Your task to perform on an android device: turn on javascript in the chrome app Image 0: 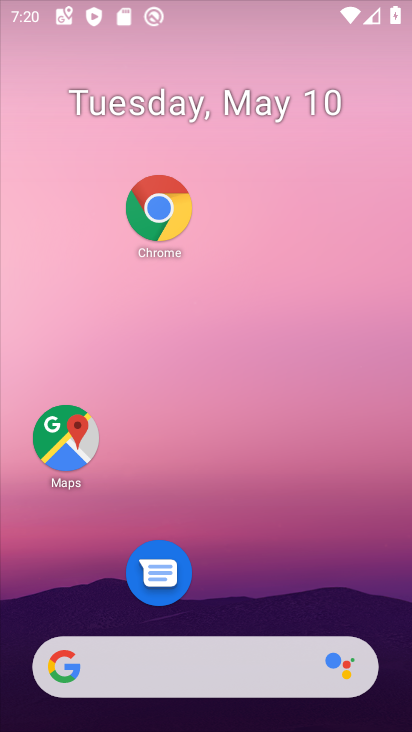
Step 0: drag from (266, 710) to (279, 262)
Your task to perform on an android device: turn on javascript in the chrome app Image 1: 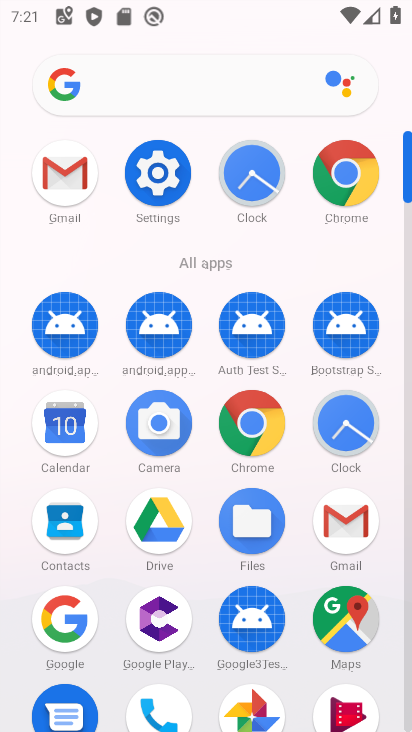
Step 1: click (344, 186)
Your task to perform on an android device: turn on javascript in the chrome app Image 2: 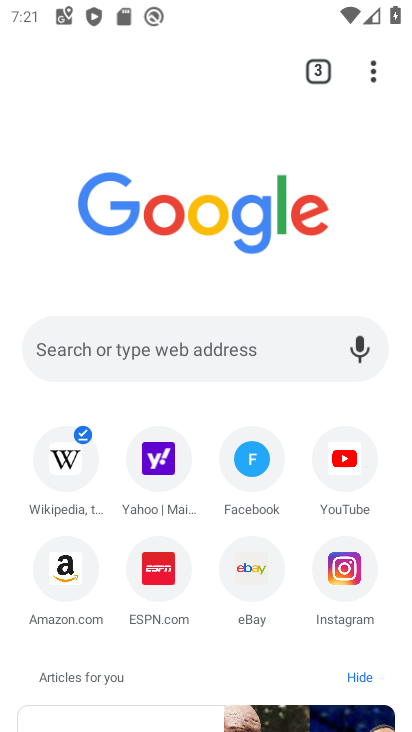
Step 2: click (372, 78)
Your task to perform on an android device: turn on javascript in the chrome app Image 3: 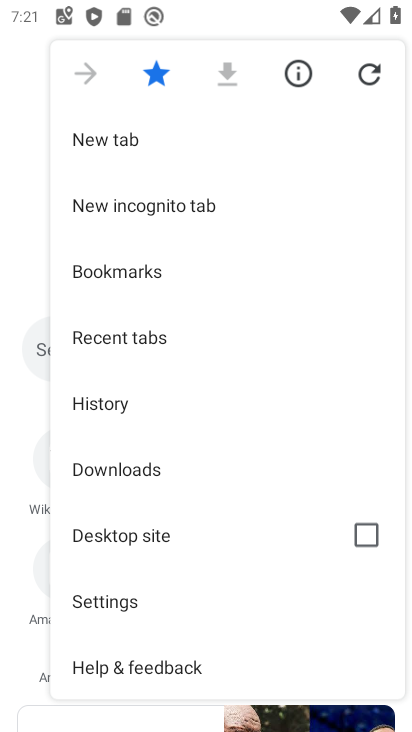
Step 3: click (115, 595)
Your task to perform on an android device: turn on javascript in the chrome app Image 4: 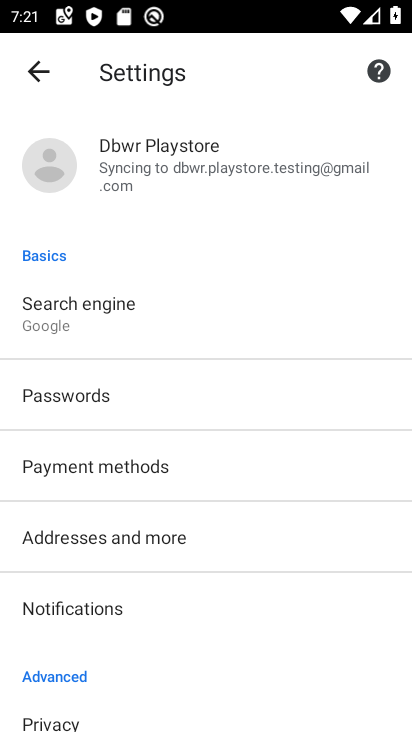
Step 4: drag from (66, 675) to (145, 403)
Your task to perform on an android device: turn on javascript in the chrome app Image 5: 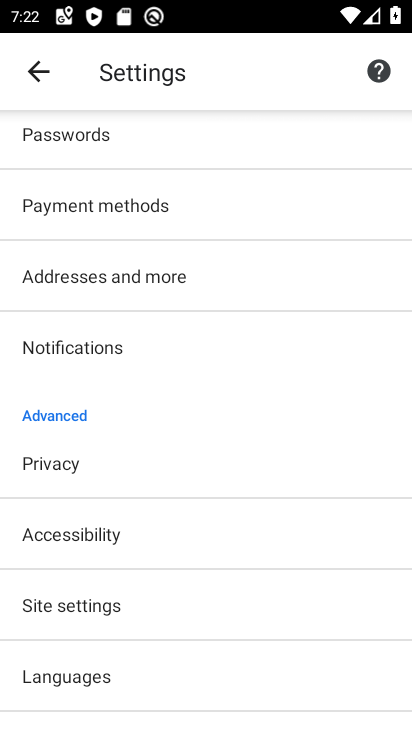
Step 5: click (97, 617)
Your task to perform on an android device: turn on javascript in the chrome app Image 6: 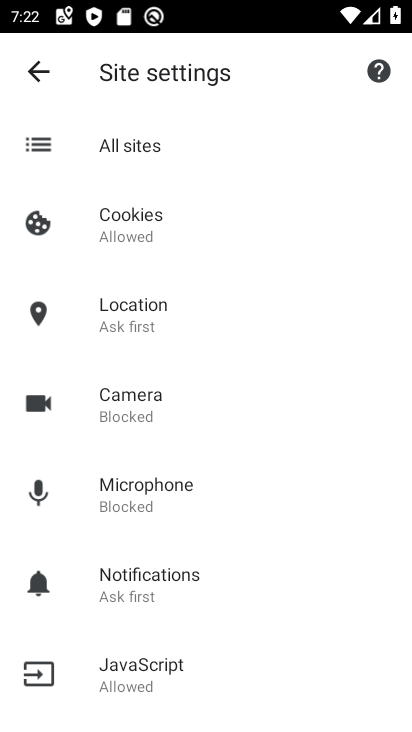
Step 6: click (151, 651)
Your task to perform on an android device: turn on javascript in the chrome app Image 7: 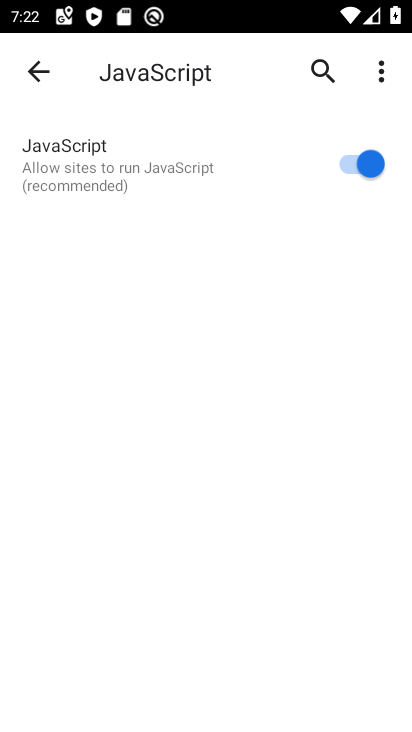
Step 7: click (268, 153)
Your task to perform on an android device: turn on javascript in the chrome app Image 8: 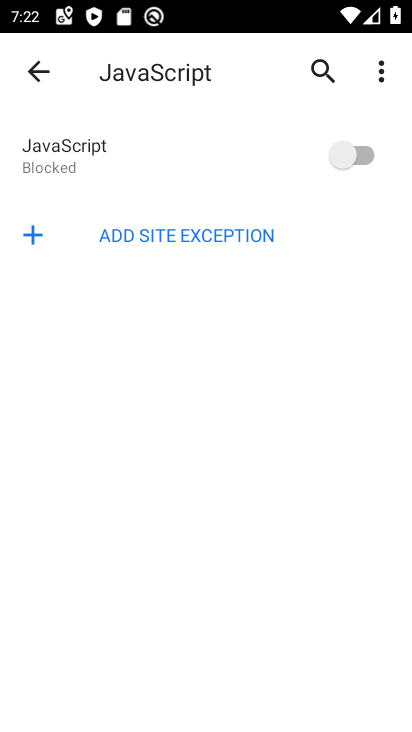
Step 8: click (268, 153)
Your task to perform on an android device: turn on javascript in the chrome app Image 9: 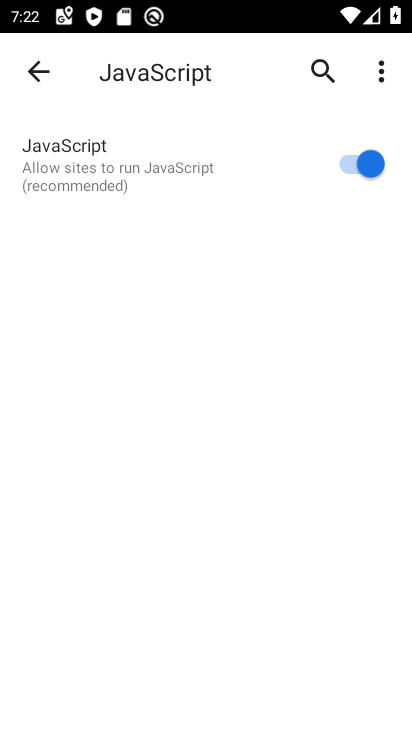
Step 9: task complete